Your task to perform on an android device: Show me productivity apps on the Play Store Image 0: 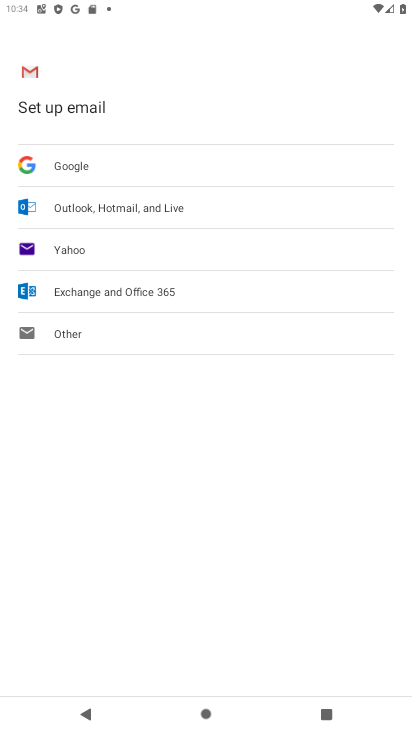
Step 0: press home button
Your task to perform on an android device: Show me productivity apps on the Play Store Image 1: 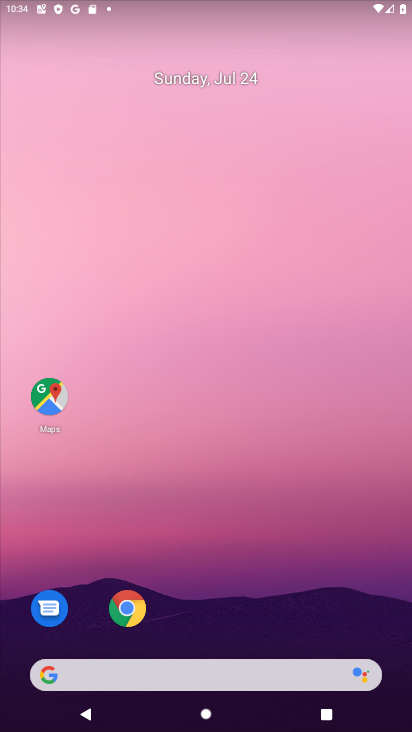
Step 1: drag from (233, 631) to (289, 72)
Your task to perform on an android device: Show me productivity apps on the Play Store Image 2: 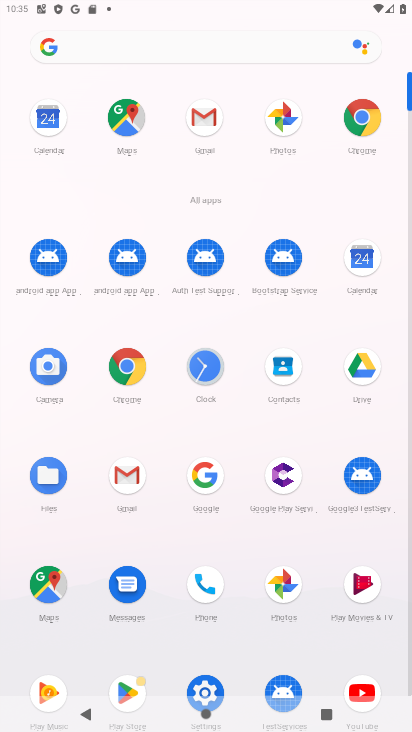
Step 2: drag from (162, 550) to (178, 31)
Your task to perform on an android device: Show me productivity apps on the Play Store Image 3: 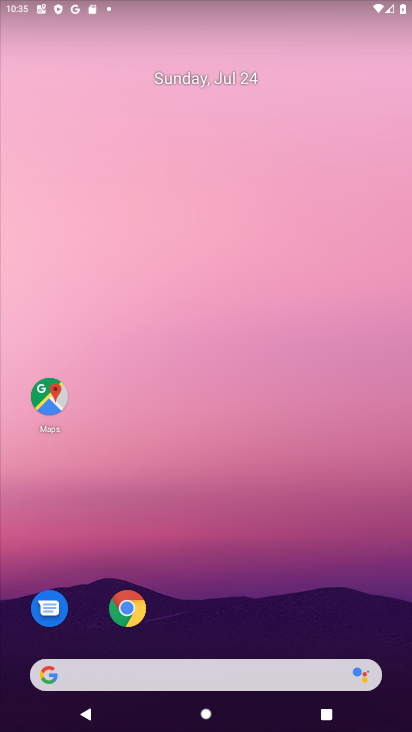
Step 3: drag from (205, 624) to (198, 3)
Your task to perform on an android device: Show me productivity apps on the Play Store Image 4: 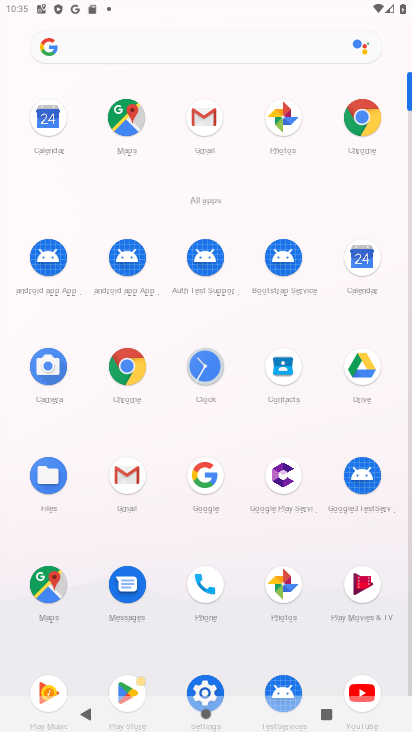
Step 4: drag from (240, 646) to (231, 143)
Your task to perform on an android device: Show me productivity apps on the Play Store Image 5: 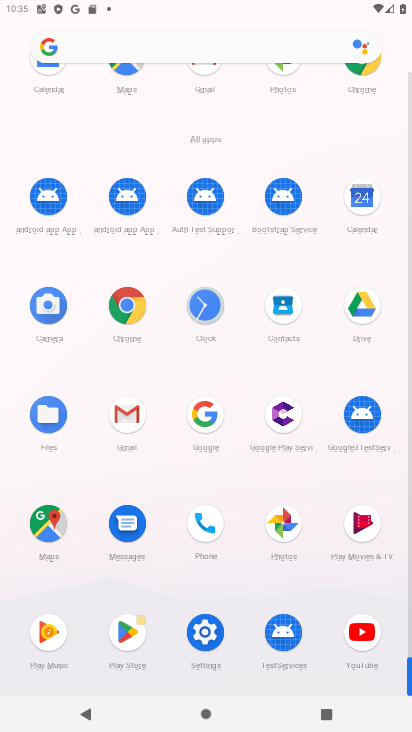
Step 5: click (123, 627)
Your task to perform on an android device: Show me productivity apps on the Play Store Image 6: 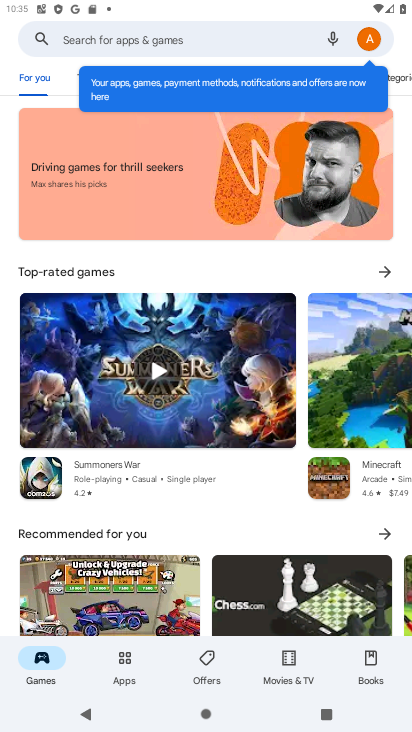
Step 6: click (125, 655)
Your task to perform on an android device: Show me productivity apps on the Play Store Image 7: 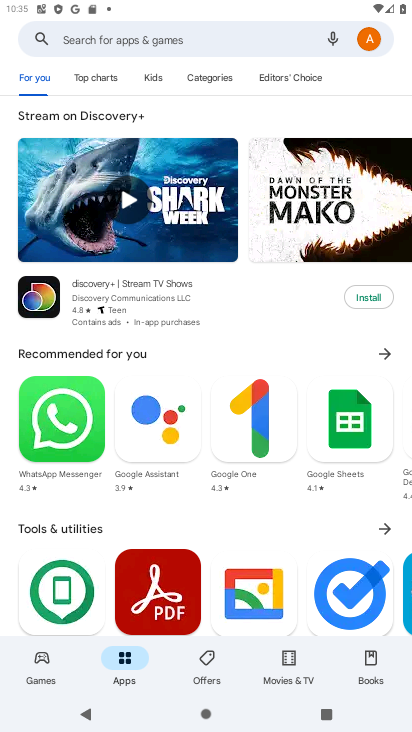
Step 7: click (206, 83)
Your task to perform on an android device: Show me productivity apps on the Play Store Image 8: 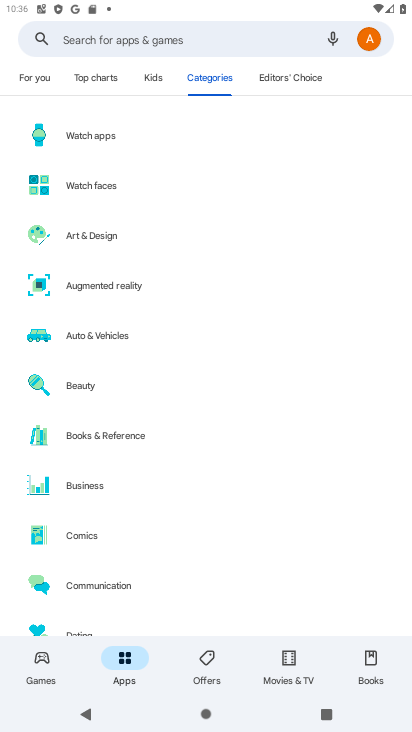
Step 8: drag from (134, 579) to (176, 53)
Your task to perform on an android device: Show me productivity apps on the Play Store Image 9: 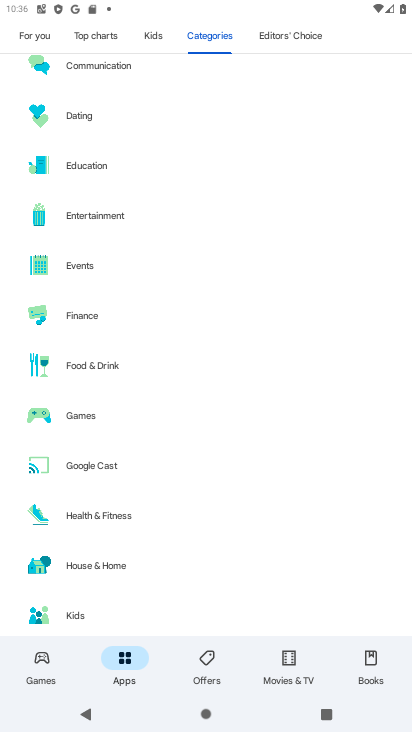
Step 9: drag from (146, 571) to (198, 78)
Your task to perform on an android device: Show me productivity apps on the Play Store Image 10: 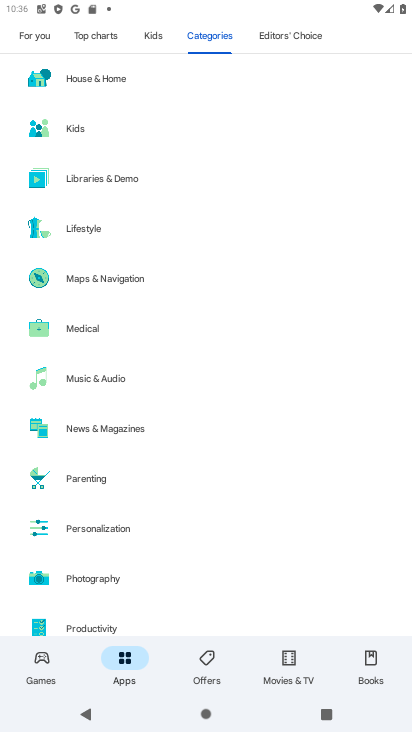
Step 10: click (133, 617)
Your task to perform on an android device: Show me productivity apps on the Play Store Image 11: 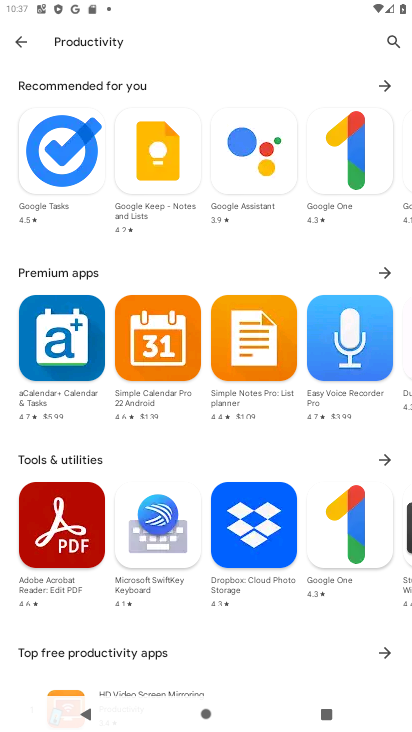
Step 11: task complete